Your task to perform on an android device: open app "Chime – Mobile Banking" (install if not already installed) and go to login screen Image 0: 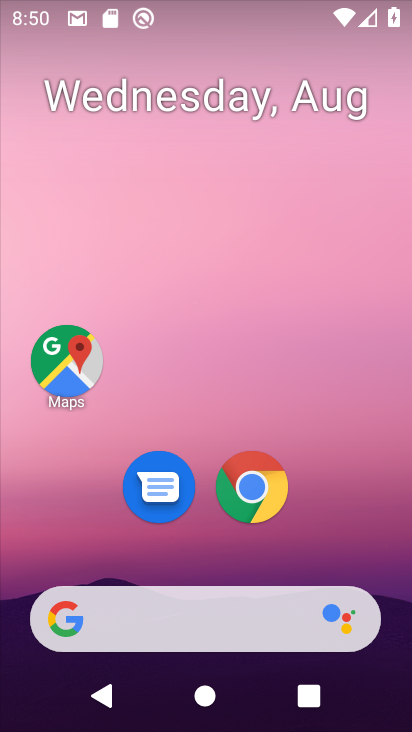
Step 0: drag from (213, 550) to (210, 21)
Your task to perform on an android device: open app "Chime – Mobile Banking" (install if not already installed) and go to login screen Image 1: 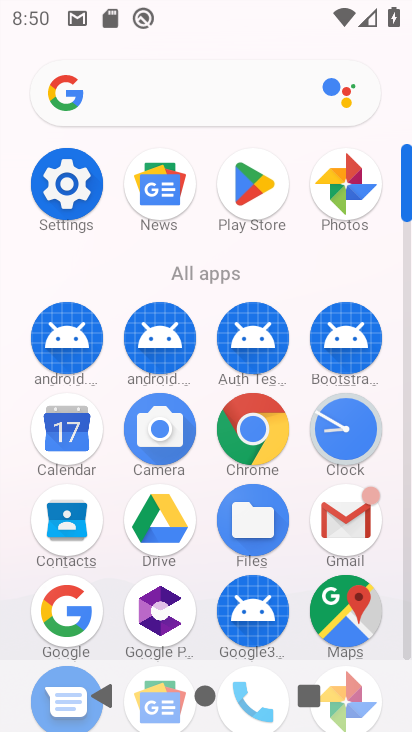
Step 1: click (242, 187)
Your task to perform on an android device: open app "Chime – Mobile Banking" (install if not already installed) and go to login screen Image 2: 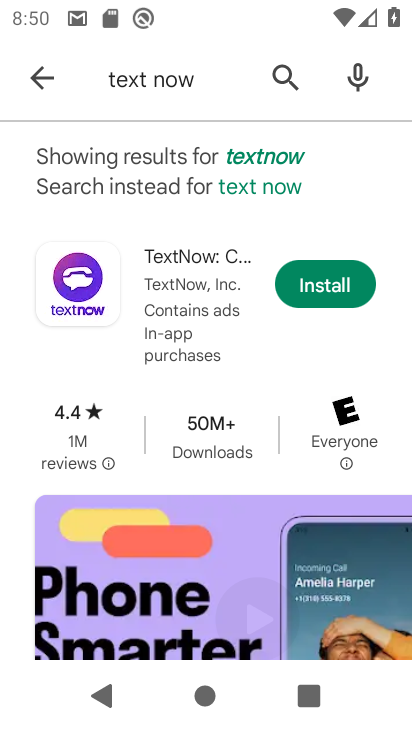
Step 2: click (278, 66)
Your task to perform on an android device: open app "Chime – Mobile Banking" (install if not already installed) and go to login screen Image 3: 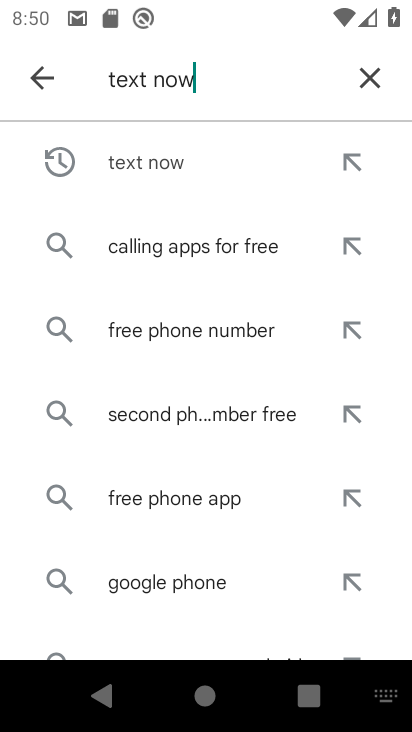
Step 3: click (374, 75)
Your task to perform on an android device: open app "Chime – Mobile Banking" (install if not already installed) and go to login screen Image 4: 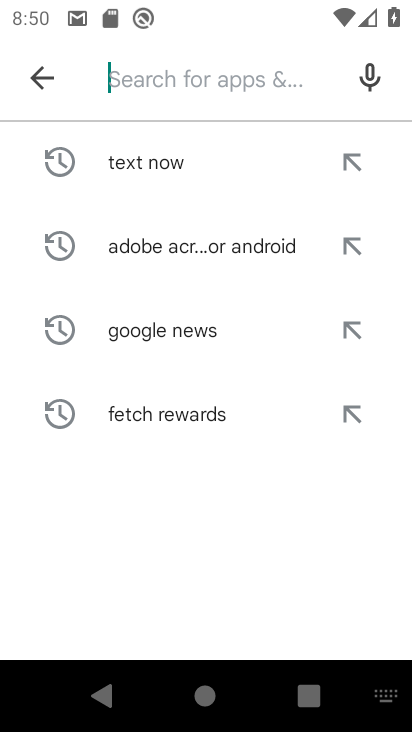
Step 4: click (135, 85)
Your task to perform on an android device: open app "Chime – Mobile Banking" (install if not already installed) and go to login screen Image 5: 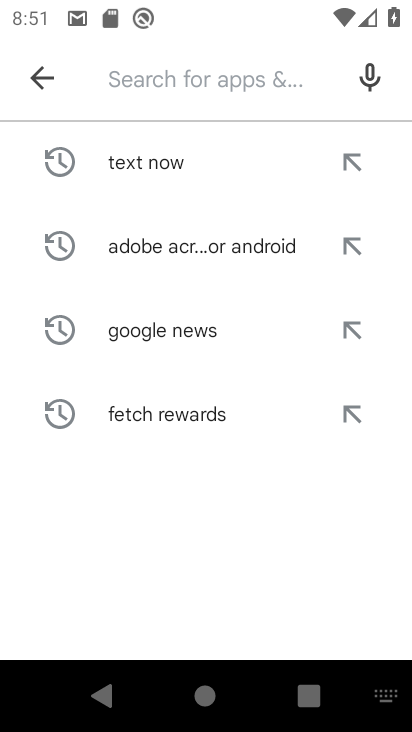
Step 5: type "chime"
Your task to perform on an android device: open app "Chime – Mobile Banking" (install if not already installed) and go to login screen Image 6: 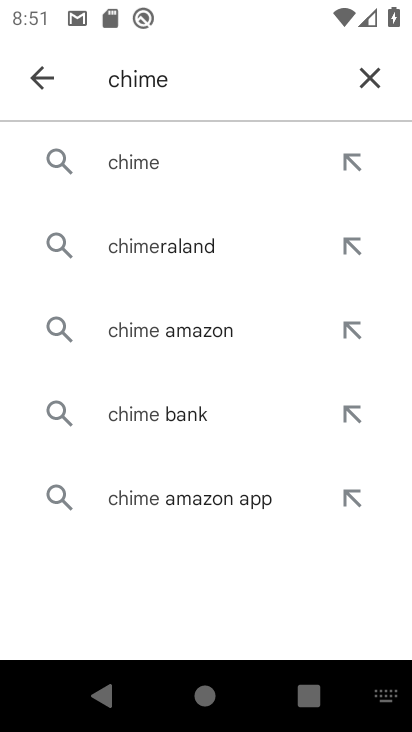
Step 6: click (159, 147)
Your task to perform on an android device: open app "Chime – Mobile Banking" (install if not already installed) and go to login screen Image 7: 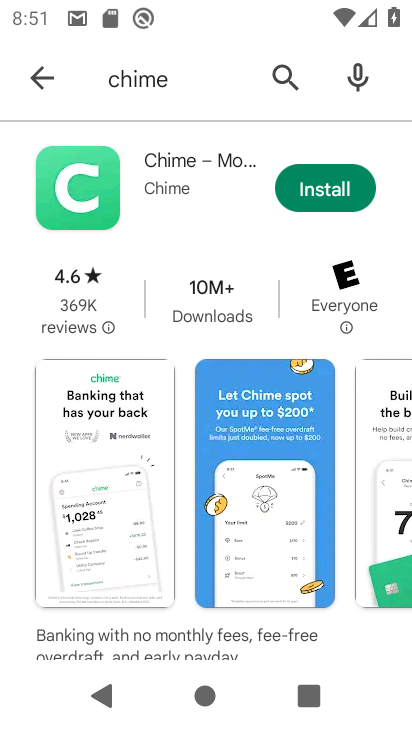
Step 7: click (322, 195)
Your task to perform on an android device: open app "Chime – Mobile Banking" (install if not already installed) and go to login screen Image 8: 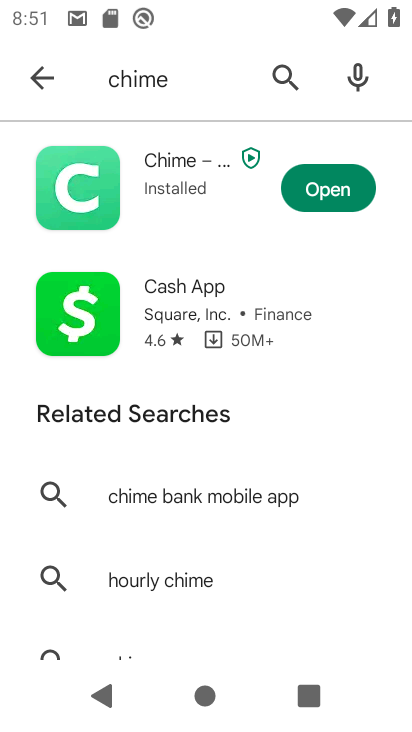
Step 8: click (337, 184)
Your task to perform on an android device: open app "Chime – Mobile Banking" (install if not already installed) and go to login screen Image 9: 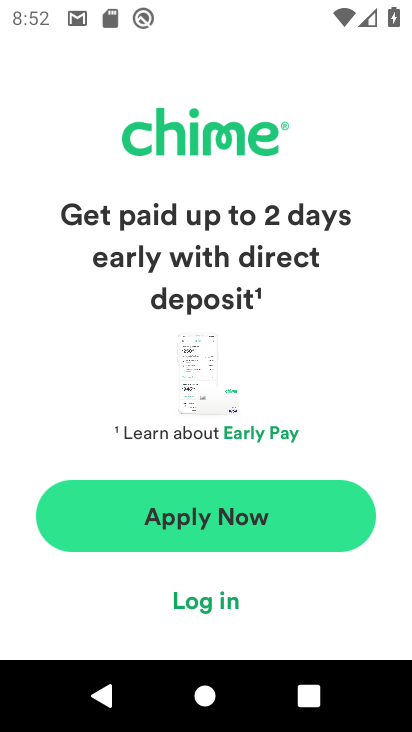
Step 9: click (182, 599)
Your task to perform on an android device: open app "Chime – Mobile Banking" (install if not already installed) and go to login screen Image 10: 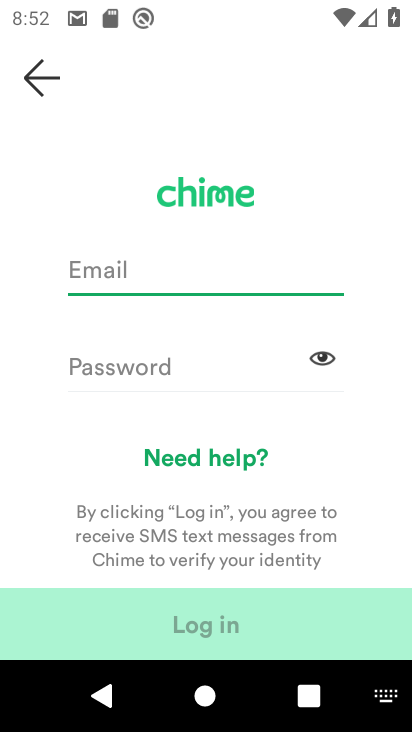
Step 10: task complete